Your task to perform on an android device: Open the calendar app, open the side menu, and click the "Day" option Image 0: 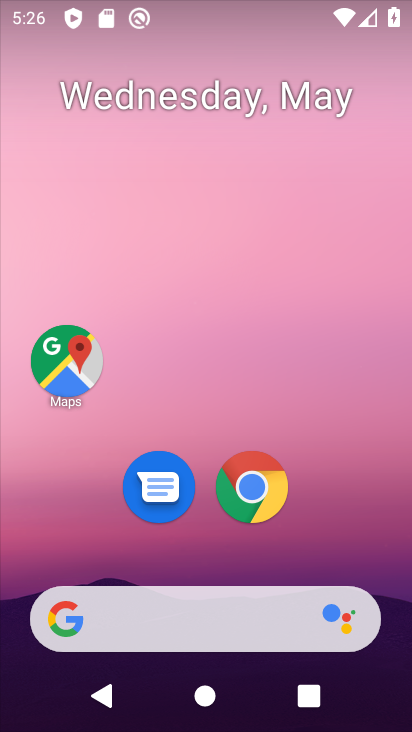
Step 0: drag from (189, 561) to (180, 85)
Your task to perform on an android device: Open the calendar app, open the side menu, and click the "Day" option Image 1: 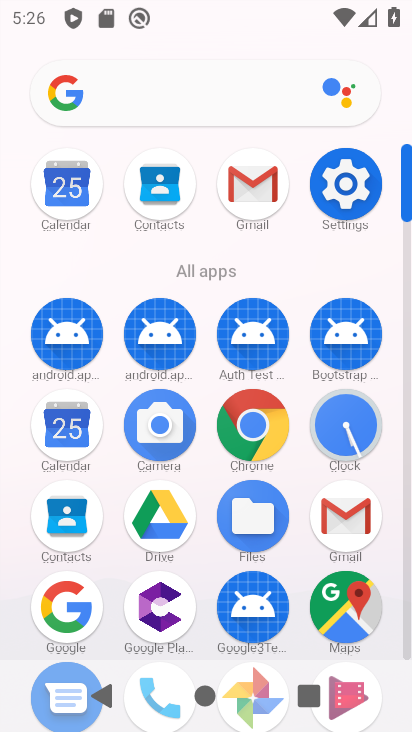
Step 1: click (69, 461)
Your task to perform on an android device: Open the calendar app, open the side menu, and click the "Day" option Image 2: 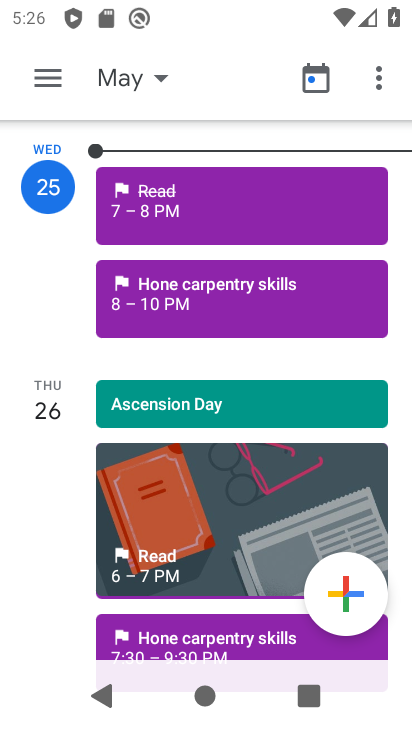
Step 2: click (42, 59)
Your task to perform on an android device: Open the calendar app, open the side menu, and click the "Day" option Image 3: 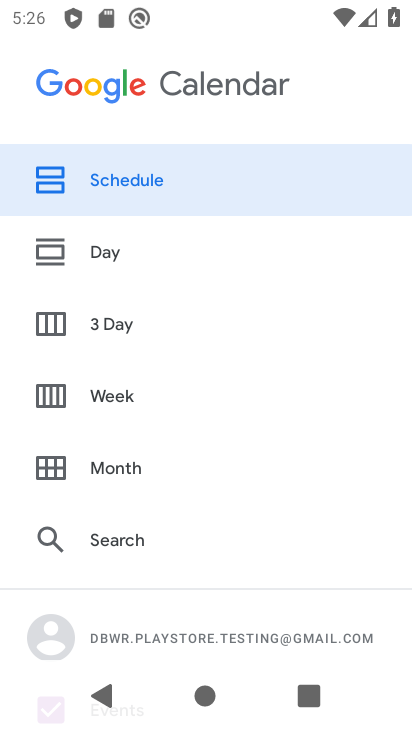
Step 3: click (104, 254)
Your task to perform on an android device: Open the calendar app, open the side menu, and click the "Day" option Image 4: 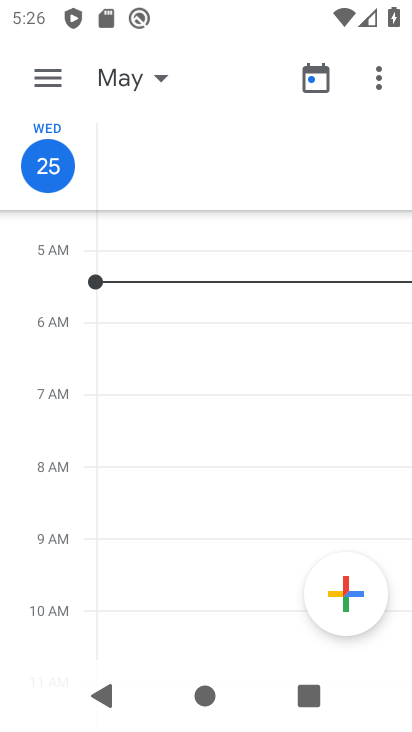
Step 4: task complete